Your task to perform on an android device: turn on wifi Image 0: 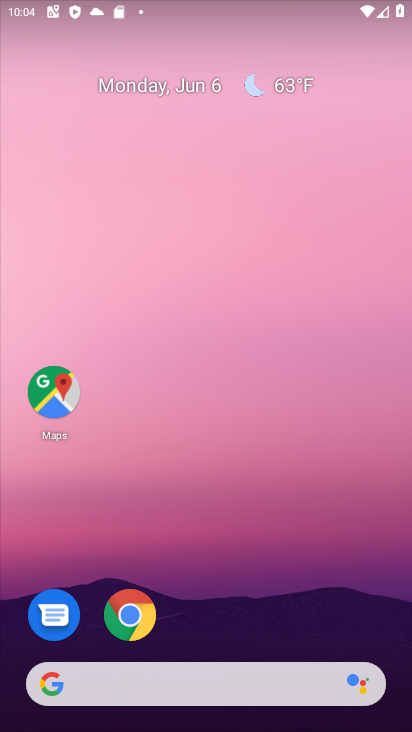
Step 0: drag from (50, 16) to (115, 530)
Your task to perform on an android device: turn on wifi Image 1: 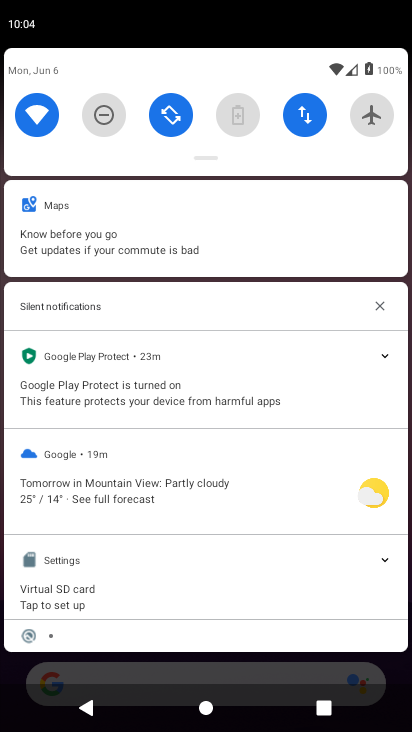
Step 1: task complete